Your task to perform on an android device: Open Google Chrome Image 0: 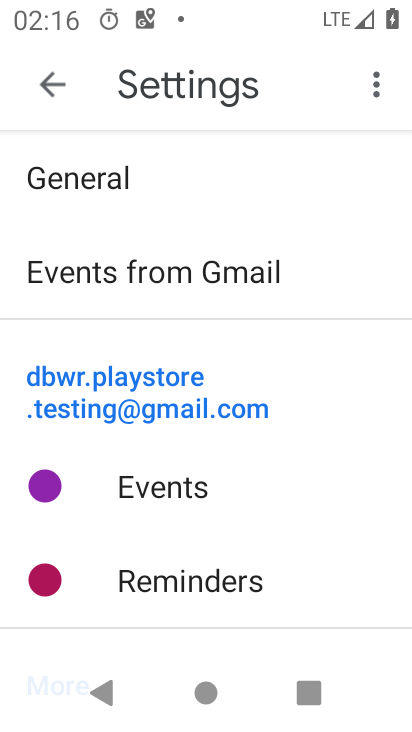
Step 0: press home button
Your task to perform on an android device: Open Google Chrome Image 1: 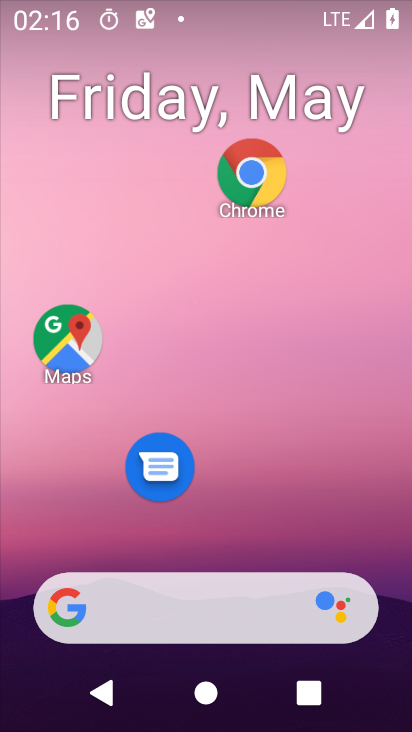
Step 1: drag from (240, 668) to (312, 127)
Your task to perform on an android device: Open Google Chrome Image 2: 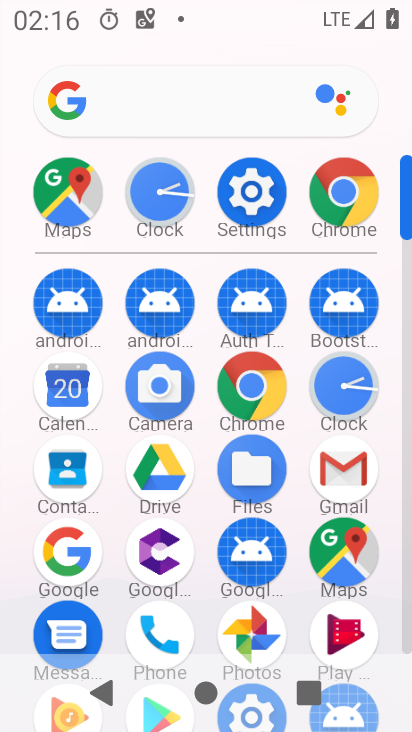
Step 2: click (236, 383)
Your task to perform on an android device: Open Google Chrome Image 3: 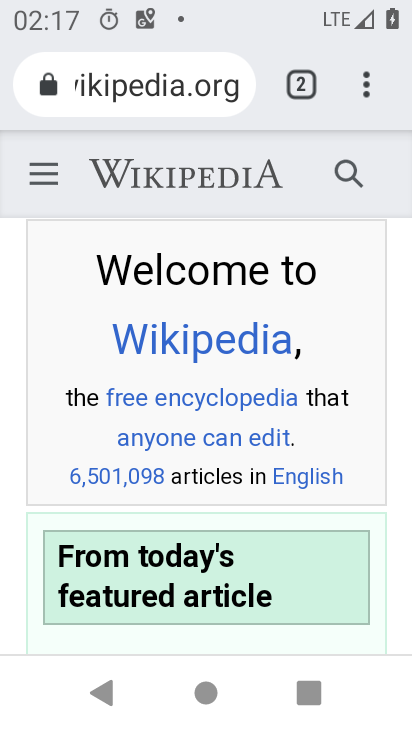
Step 3: click (283, 88)
Your task to perform on an android device: Open Google Chrome Image 4: 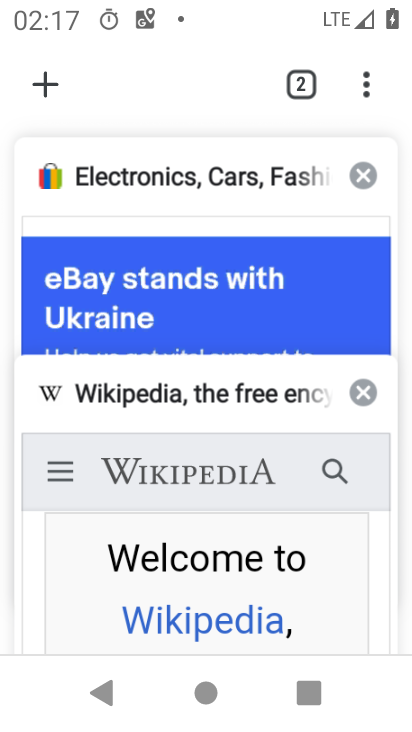
Step 4: click (56, 85)
Your task to perform on an android device: Open Google Chrome Image 5: 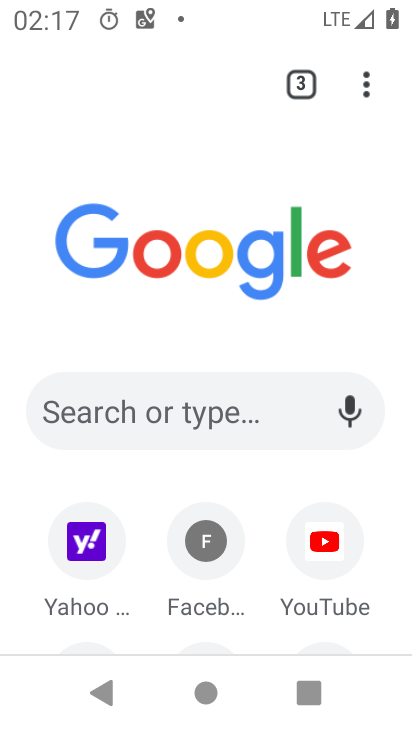
Step 5: task complete